Your task to perform on an android device: move a message to another label in the gmail app Image 0: 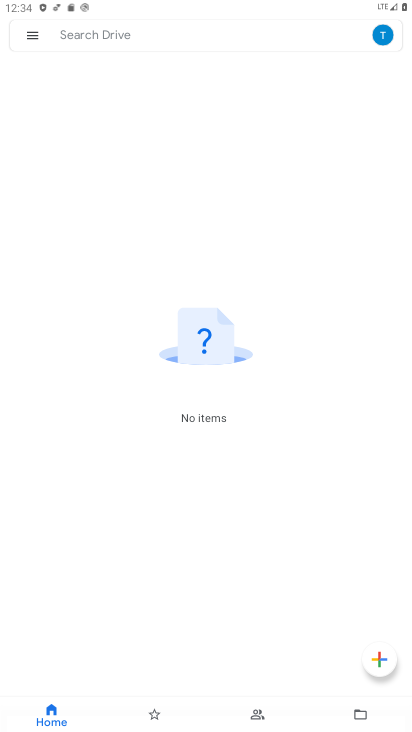
Step 0: press home button
Your task to perform on an android device: move a message to another label in the gmail app Image 1: 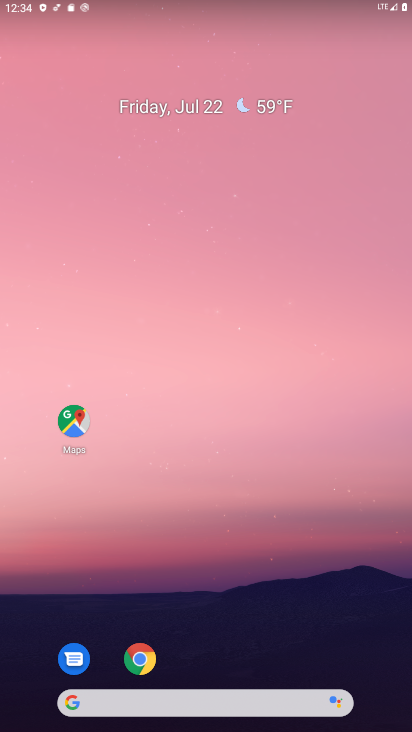
Step 1: drag from (198, 649) to (198, 252)
Your task to perform on an android device: move a message to another label in the gmail app Image 2: 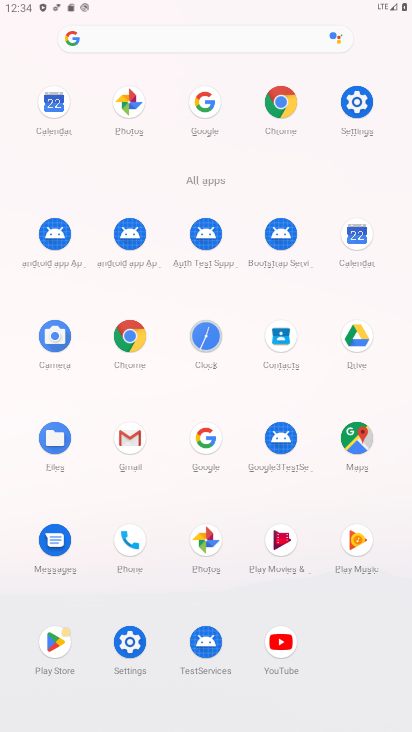
Step 2: click (126, 431)
Your task to perform on an android device: move a message to another label in the gmail app Image 3: 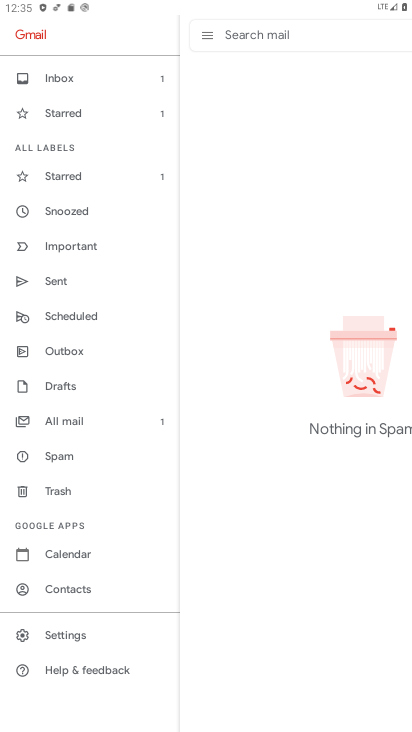
Step 3: click (81, 431)
Your task to perform on an android device: move a message to another label in the gmail app Image 4: 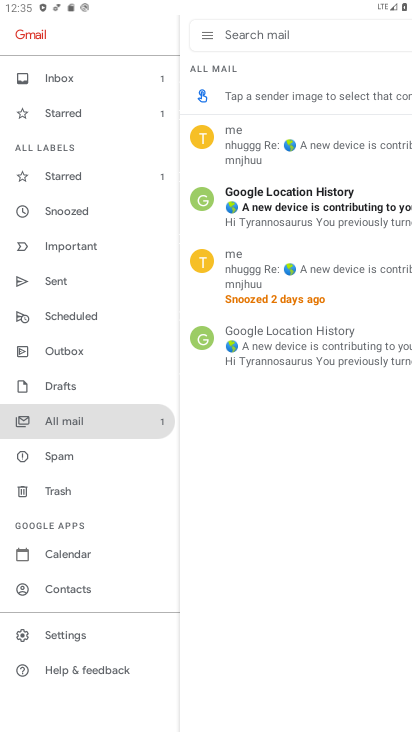
Step 4: click (278, 209)
Your task to perform on an android device: move a message to another label in the gmail app Image 5: 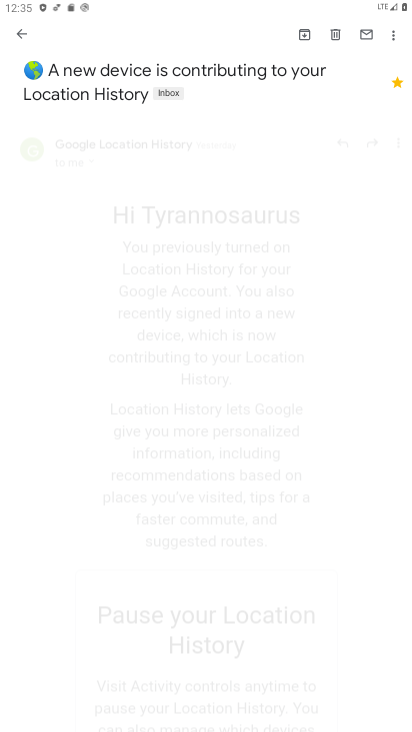
Step 5: click (389, 42)
Your task to perform on an android device: move a message to another label in the gmail app Image 6: 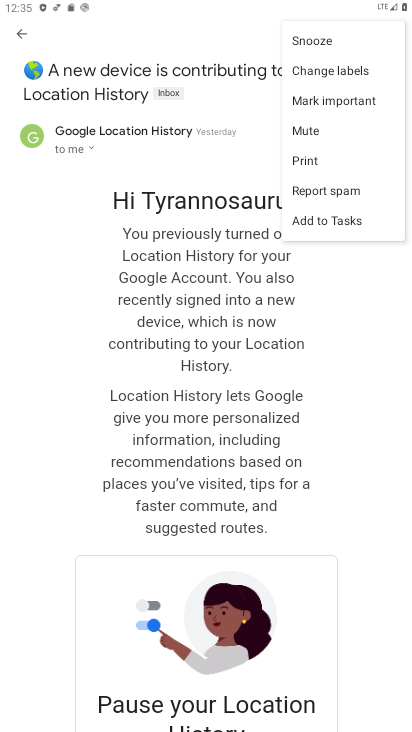
Step 6: click (325, 79)
Your task to perform on an android device: move a message to another label in the gmail app Image 7: 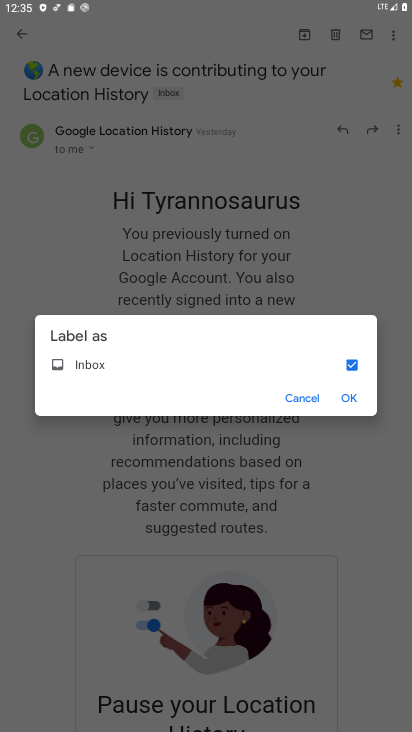
Step 7: click (333, 399)
Your task to perform on an android device: move a message to another label in the gmail app Image 8: 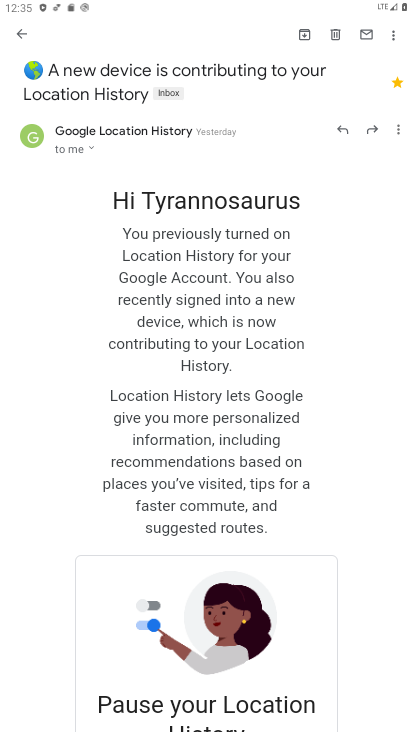
Step 8: task complete